Your task to perform on an android device: Do I have any events this weekend? Image 0: 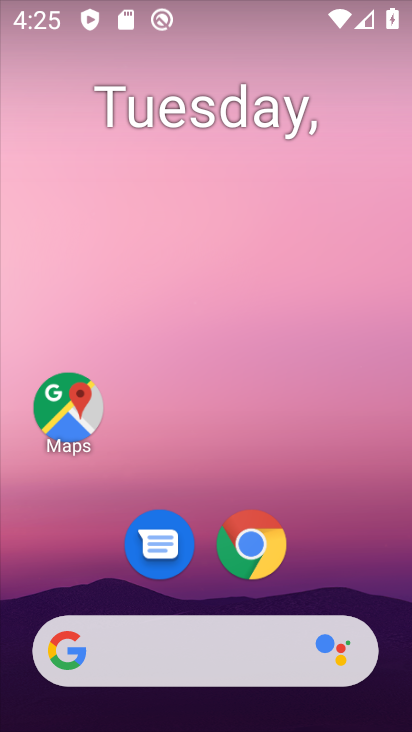
Step 0: drag from (195, 579) to (296, 0)
Your task to perform on an android device: Do I have any events this weekend? Image 1: 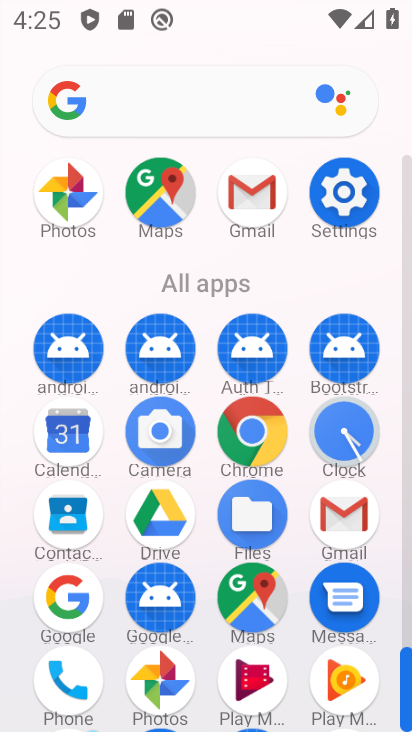
Step 1: click (61, 438)
Your task to perform on an android device: Do I have any events this weekend? Image 2: 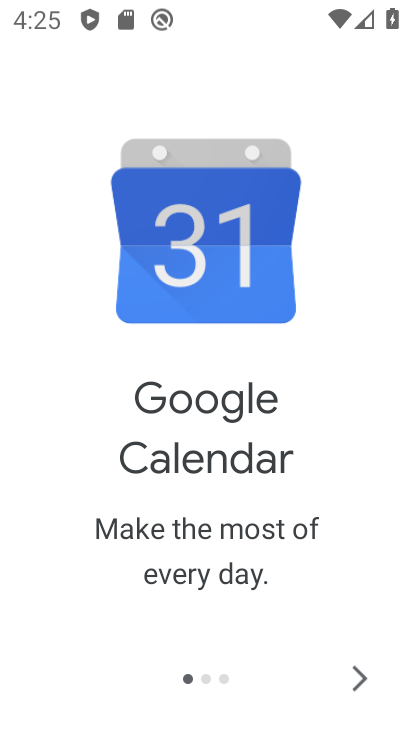
Step 2: click (368, 673)
Your task to perform on an android device: Do I have any events this weekend? Image 3: 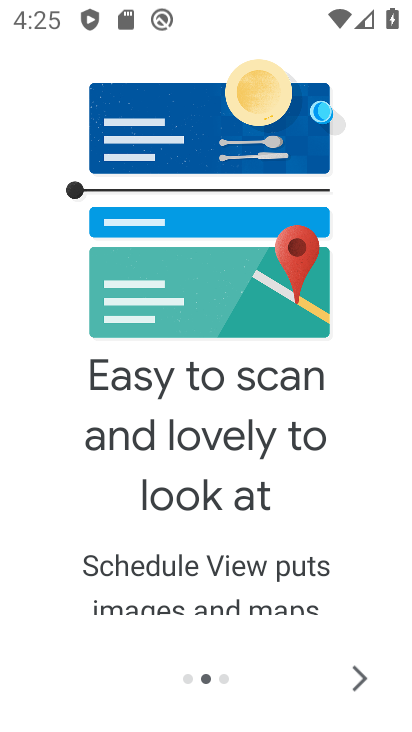
Step 3: click (351, 678)
Your task to perform on an android device: Do I have any events this weekend? Image 4: 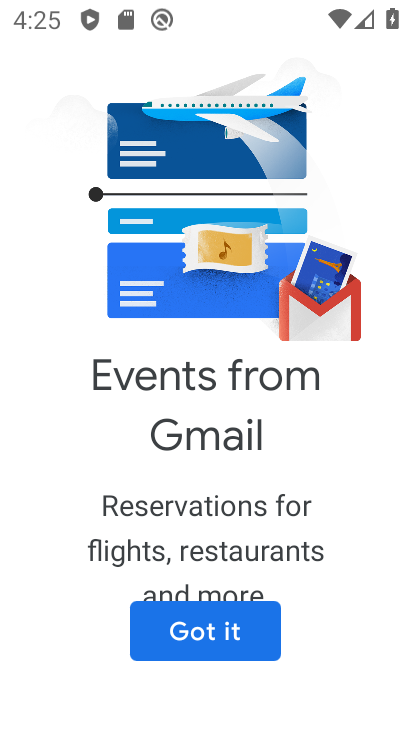
Step 4: click (192, 635)
Your task to perform on an android device: Do I have any events this weekend? Image 5: 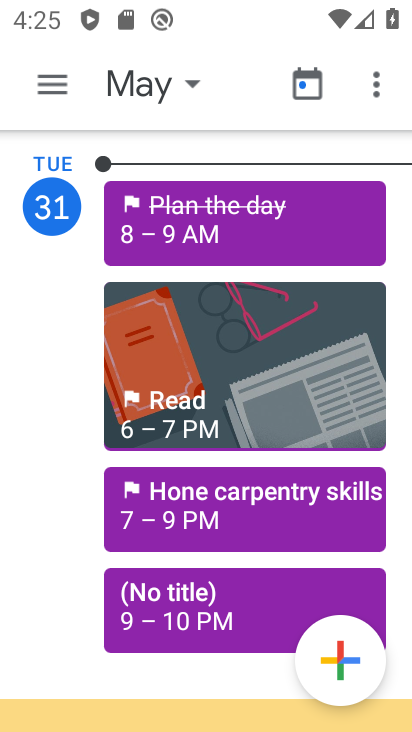
Step 5: click (55, 97)
Your task to perform on an android device: Do I have any events this weekend? Image 6: 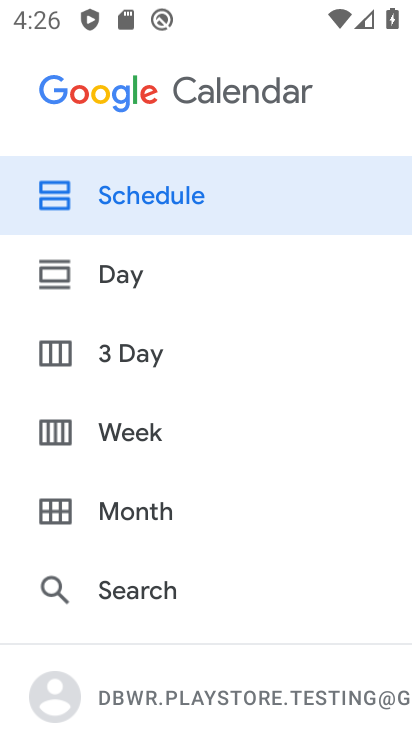
Step 6: click (128, 436)
Your task to perform on an android device: Do I have any events this weekend? Image 7: 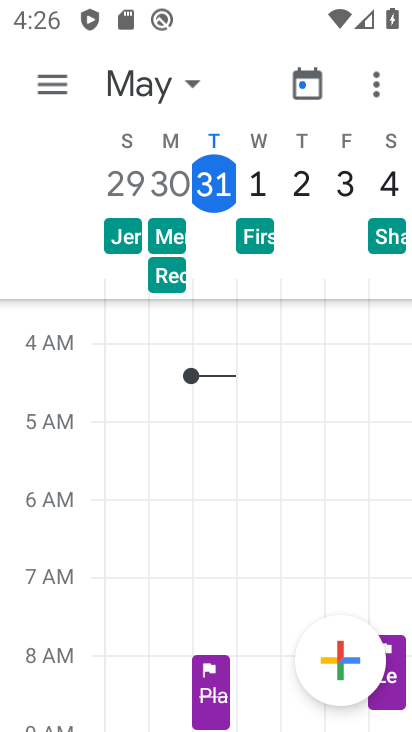
Step 7: click (50, 83)
Your task to perform on an android device: Do I have any events this weekend? Image 8: 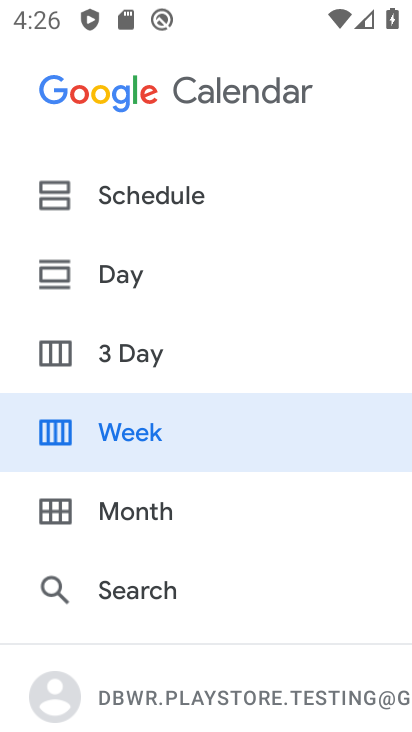
Step 8: drag from (156, 541) to (218, 264)
Your task to perform on an android device: Do I have any events this weekend? Image 9: 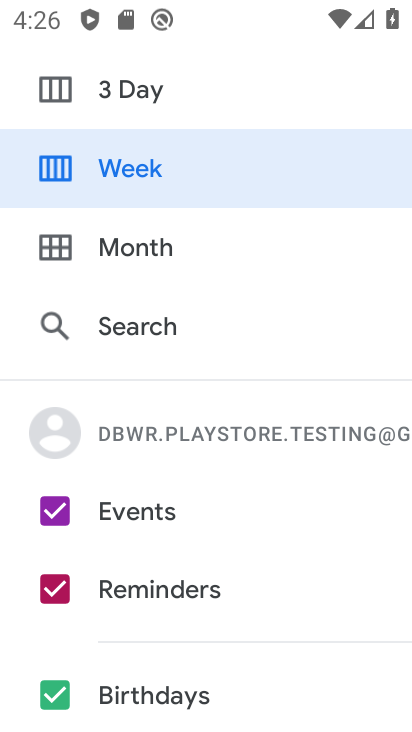
Step 9: click (131, 594)
Your task to perform on an android device: Do I have any events this weekend? Image 10: 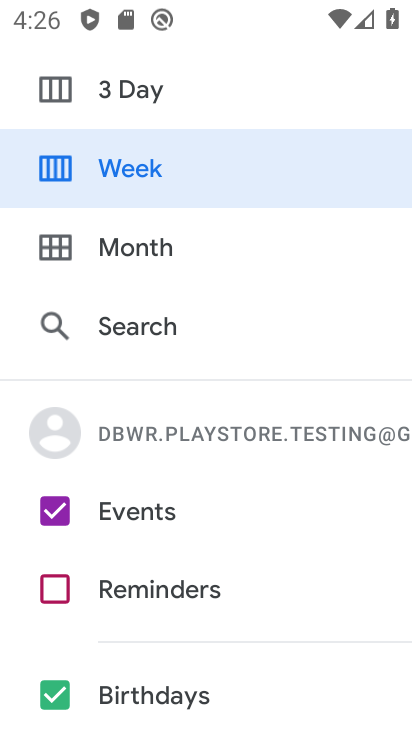
Step 10: drag from (125, 673) to (152, 442)
Your task to perform on an android device: Do I have any events this weekend? Image 11: 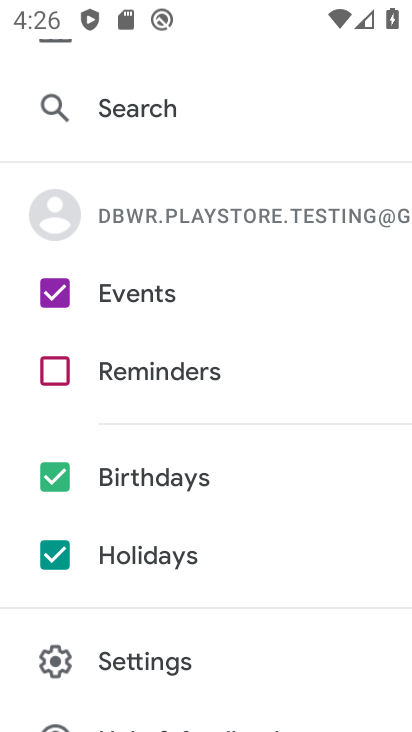
Step 11: click (131, 566)
Your task to perform on an android device: Do I have any events this weekend? Image 12: 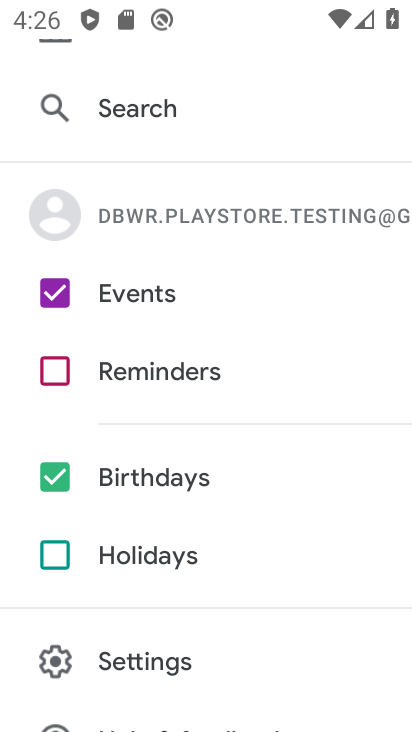
Step 12: click (136, 467)
Your task to perform on an android device: Do I have any events this weekend? Image 13: 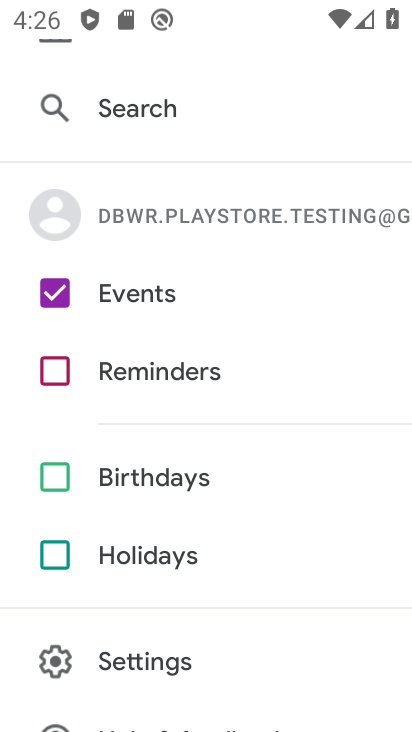
Step 13: drag from (292, 230) to (287, 309)
Your task to perform on an android device: Do I have any events this weekend? Image 14: 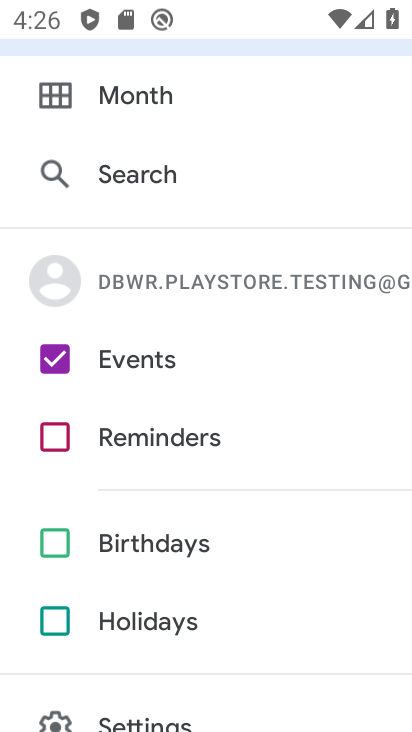
Step 14: drag from (143, 105) to (129, 343)
Your task to perform on an android device: Do I have any events this weekend? Image 15: 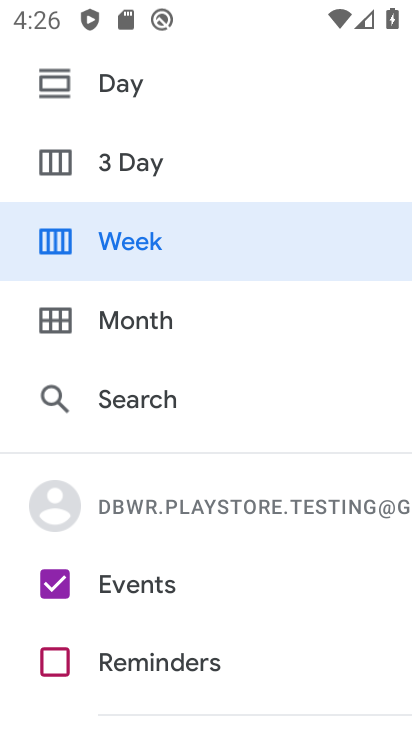
Step 15: click (162, 255)
Your task to perform on an android device: Do I have any events this weekend? Image 16: 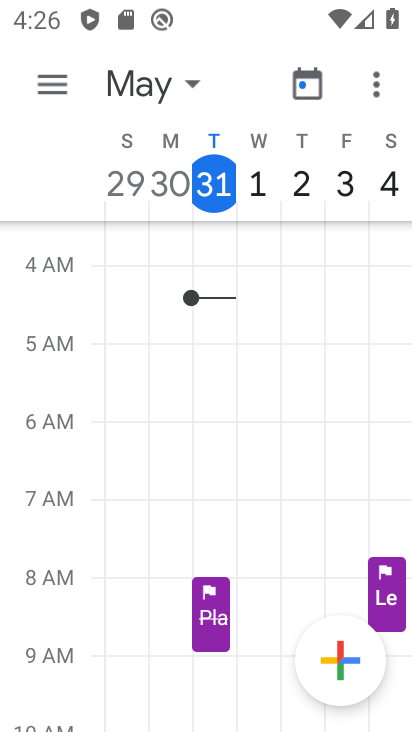
Step 16: task complete